Your task to perform on an android device: Go to notification settings Image 0: 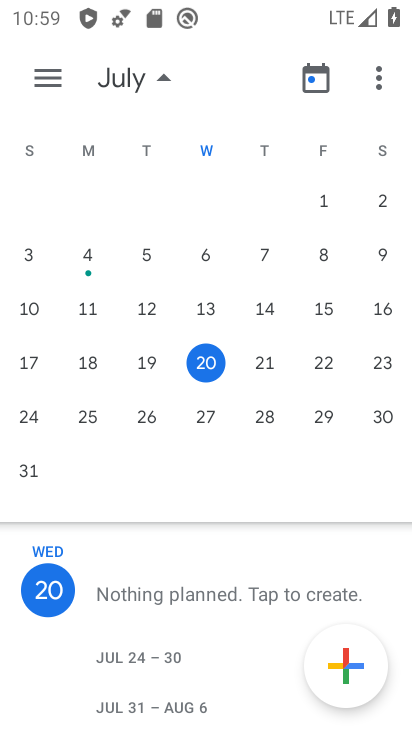
Step 0: press home button
Your task to perform on an android device: Go to notification settings Image 1: 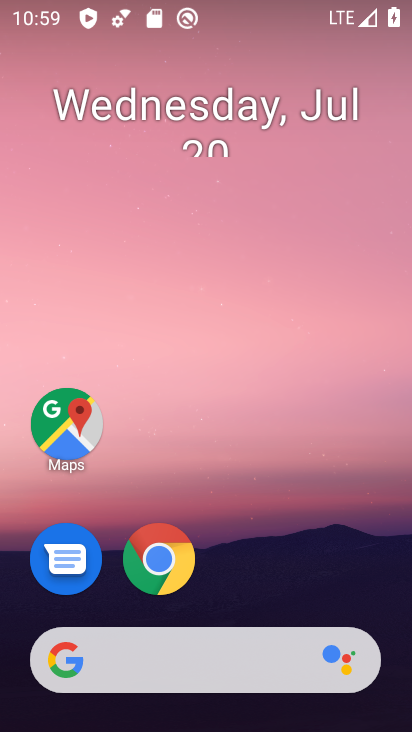
Step 1: drag from (173, 645) to (200, 164)
Your task to perform on an android device: Go to notification settings Image 2: 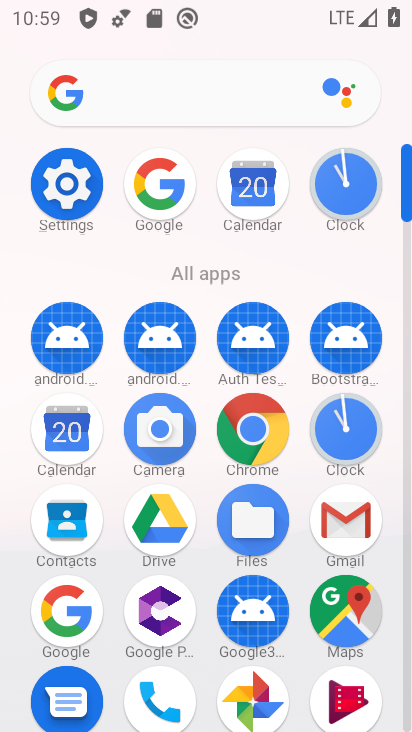
Step 2: click (79, 180)
Your task to perform on an android device: Go to notification settings Image 3: 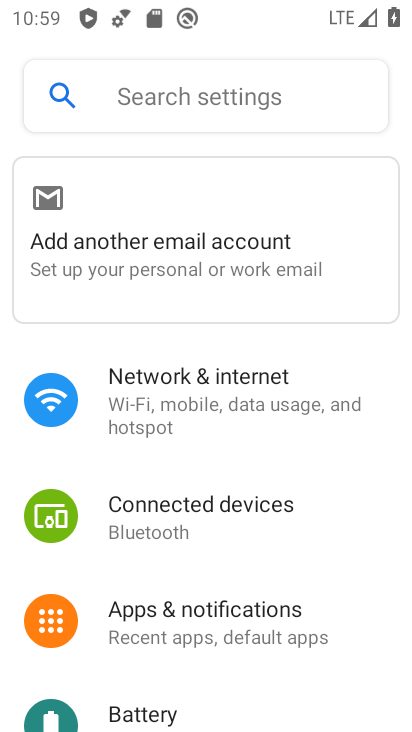
Step 3: click (228, 602)
Your task to perform on an android device: Go to notification settings Image 4: 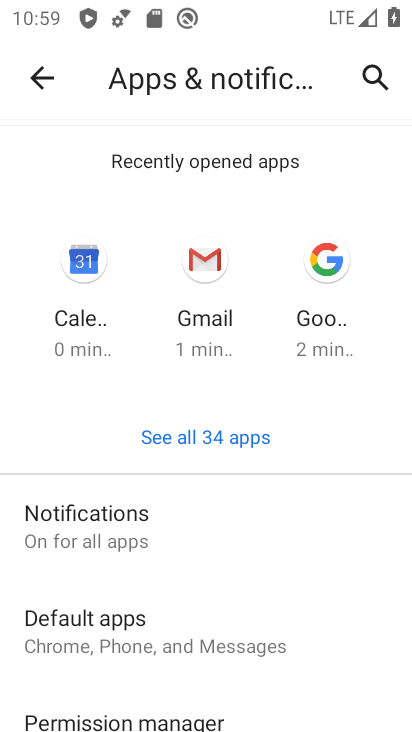
Step 4: drag from (226, 594) to (191, 387)
Your task to perform on an android device: Go to notification settings Image 5: 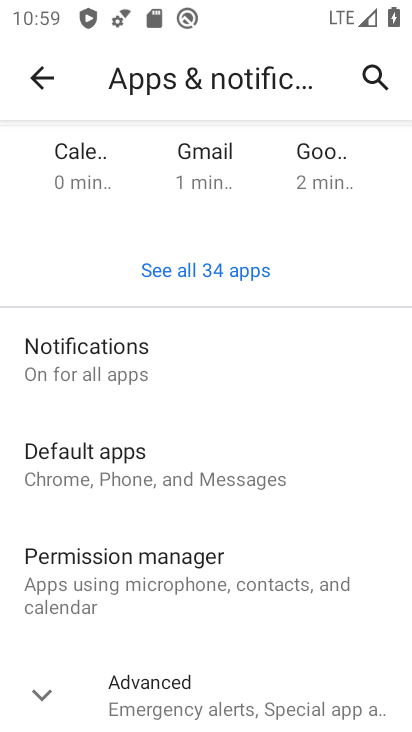
Step 5: click (173, 373)
Your task to perform on an android device: Go to notification settings Image 6: 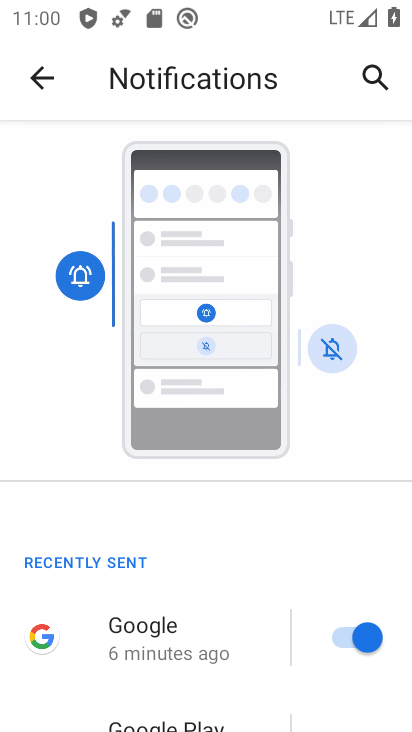
Step 6: task complete